Your task to perform on an android device: Is it going to rain tomorrow? Image 0: 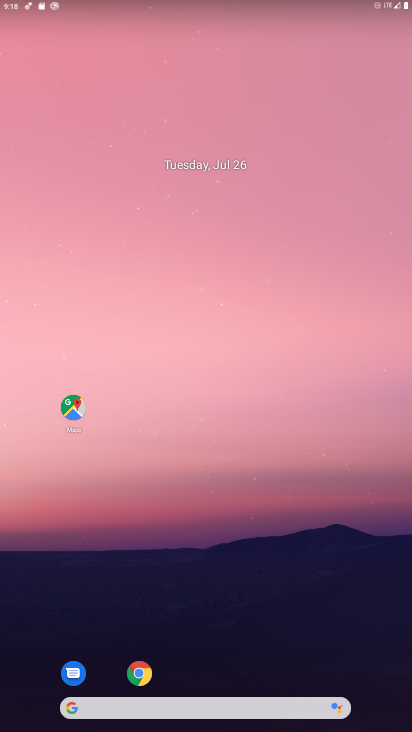
Step 0: click (179, 710)
Your task to perform on an android device: Is it going to rain tomorrow? Image 1: 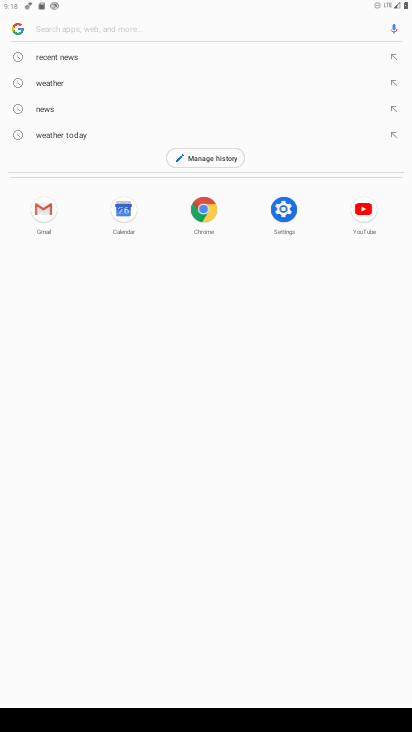
Step 1: click (46, 78)
Your task to perform on an android device: Is it going to rain tomorrow? Image 2: 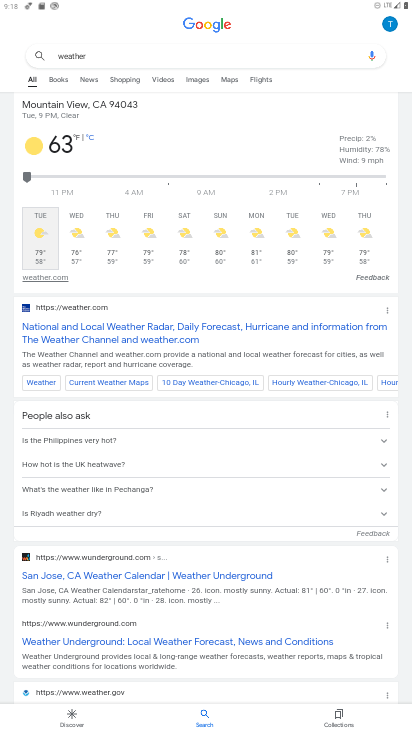
Step 2: click (75, 230)
Your task to perform on an android device: Is it going to rain tomorrow? Image 3: 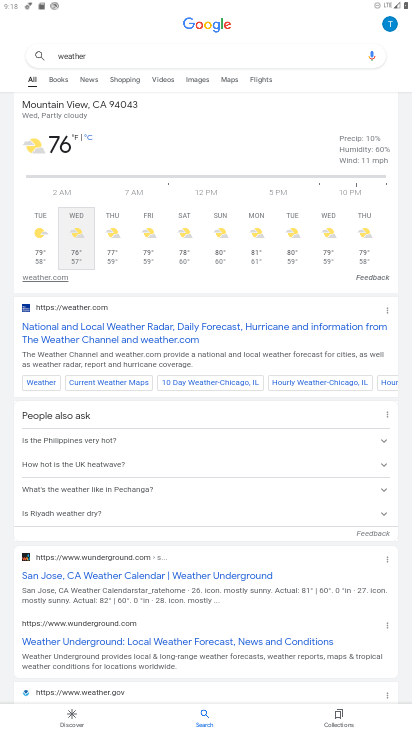
Step 3: click (75, 230)
Your task to perform on an android device: Is it going to rain tomorrow? Image 4: 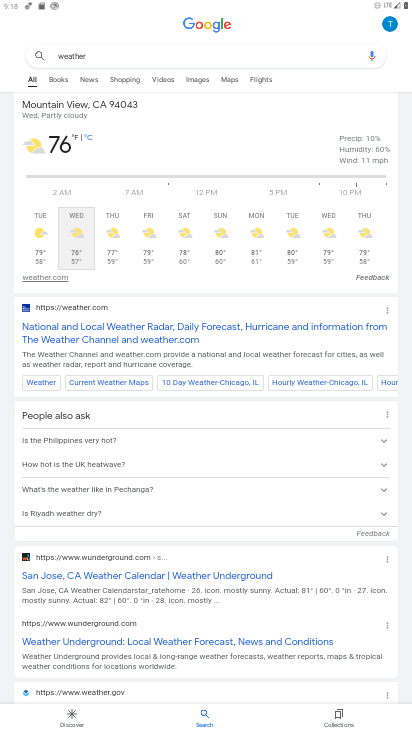
Step 4: click (49, 134)
Your task to perform on an android device: Is it going to rain tomorrow? Image 5: 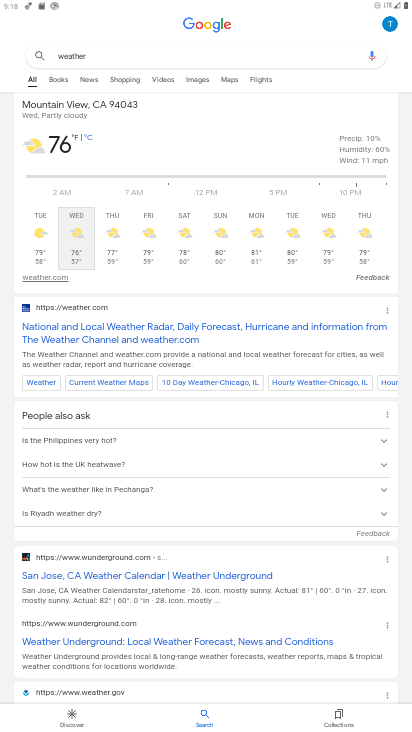
Step 5: click (59, 150)
Your task to perform on an android device: Is it going to rain tomorrow? Image 6: 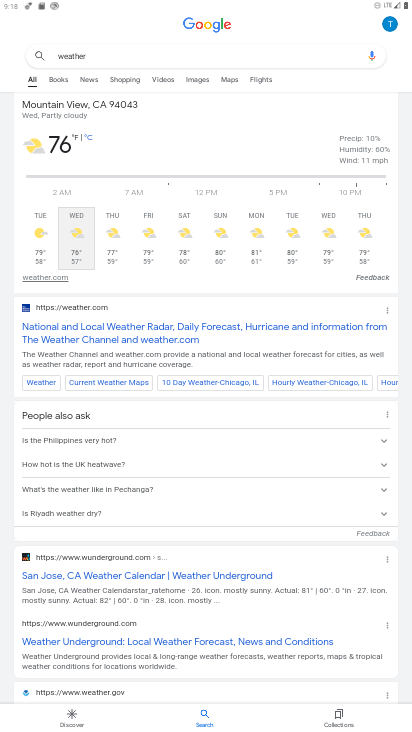
Step 6: click (84, 252)
Your task to perform on an android device: Is it going to rain tomorrow? Image 7: 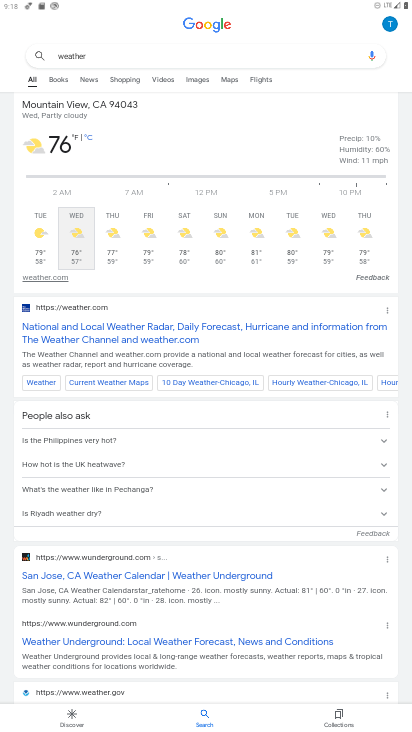
Step 7: task complete